Your task to perform on an android device: Open the Play Movies app and select the watchlist tab. Image 0: 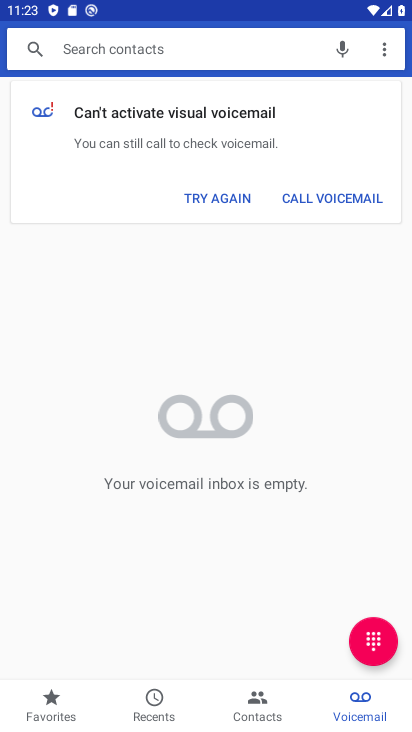
Step 0: press home button
Your task to perform on an android device: Open the Play Movies app and select the watchlist tab. Image 1: 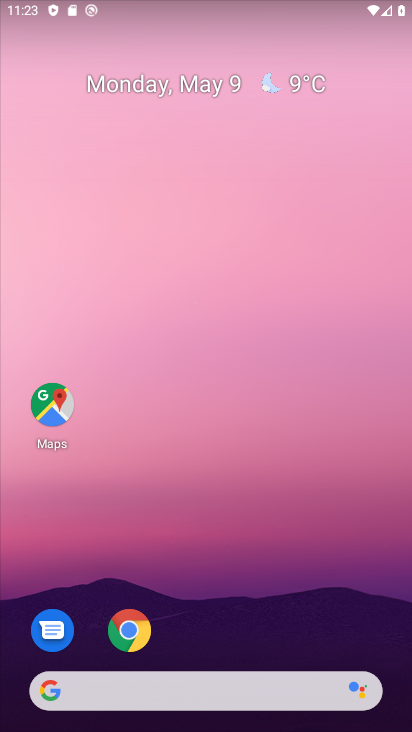
Step 1: drag from (282, 558) to (208, 203)
Your task to perform on an android device: Open the Play Movies app and select the watchlist tab. Image 2: 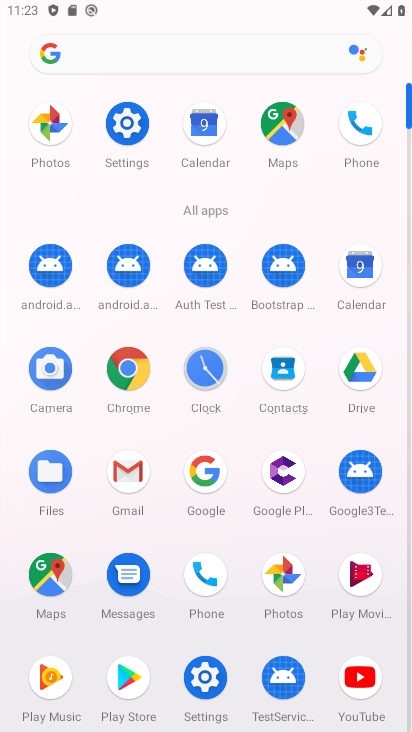
Step 2: drag from (250, 627) to (178, 330)
Your task to perform on an android device: Open the Play Movies app and select the watchlist tab. Image 3: 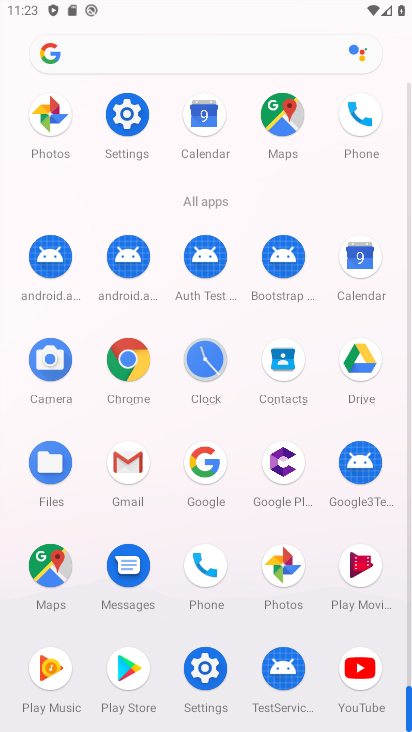
Step 3: click (365, 564)
Your task to perform on an android device: Open the Play Movies app and select the watchlist tab. Image 4: 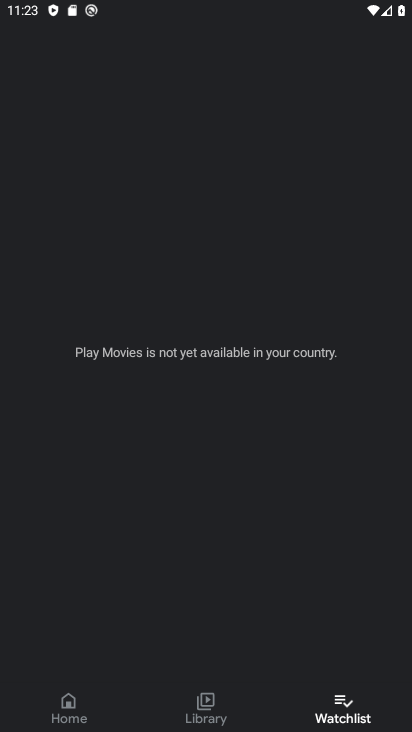
Step 4: click (339, 703)
Your task to perform on an android device: Open the Play Movies app and select the watchlist tab. Image 5: 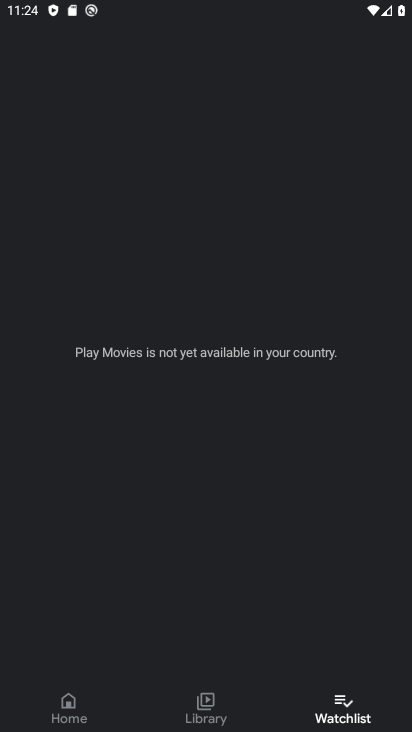
Step 5: task complete